Your task to perform on an android device: Open wifi settings Image 0: 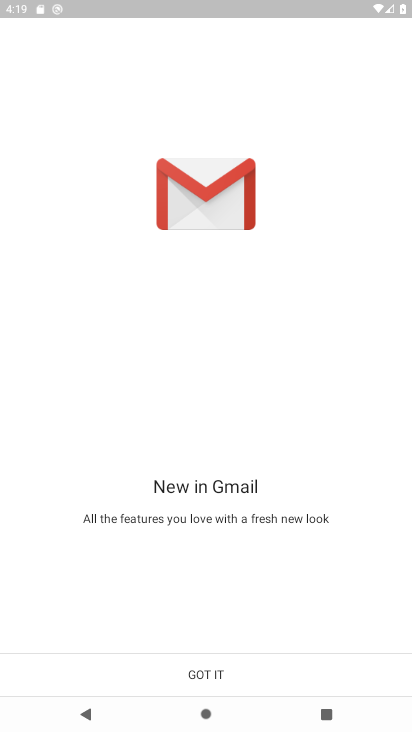
Step 0: press home button
Your task to perform on an android device: Open wifi settings Image 1: 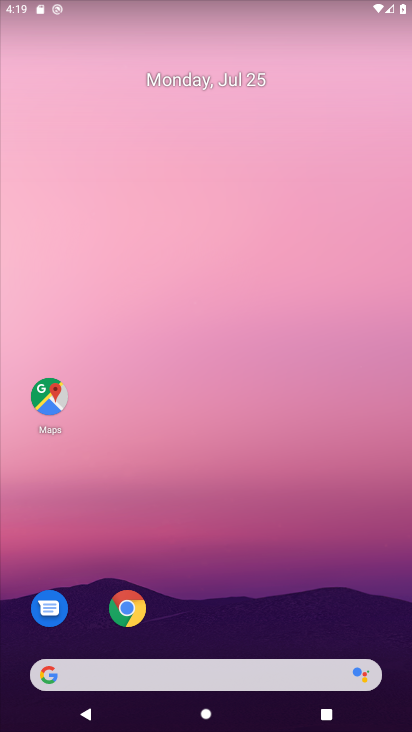
Step 1: drag from (200, 655) to (267, 1)
Your task to perform on an android device: Open wifi settings Image 2: 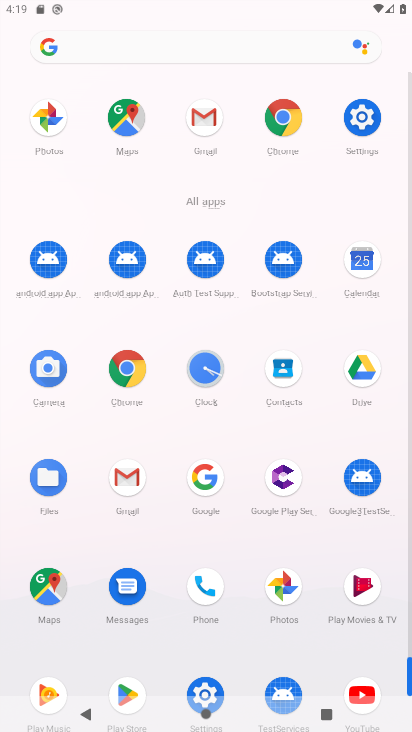
Step 2: click (361, 140)
Your task to perform on an android device: Open wifi settings Image 3: 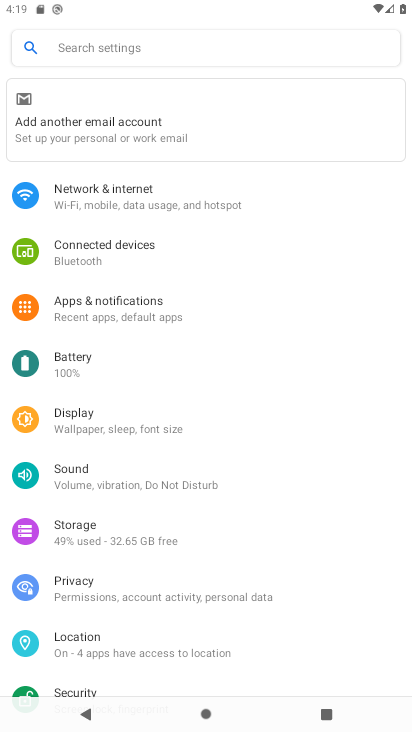
Step 3: click (144, 202)
Your task to perform on an android device: Open wifi settings Image 4: 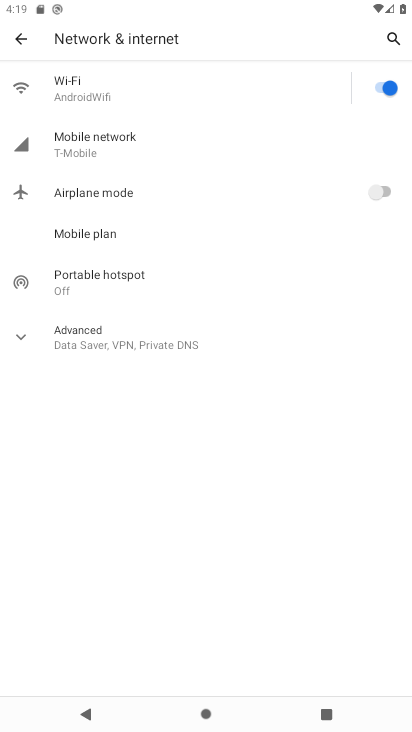
Step 4: click (99, 94)
Your task to perform on an android device: Open wifi settings Image 5: 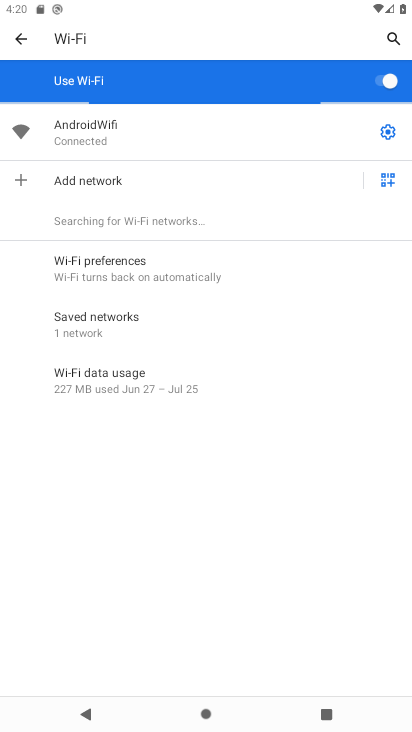
Step 5: task complete